Your task to perform on an android device: turn off wifi Image 0: 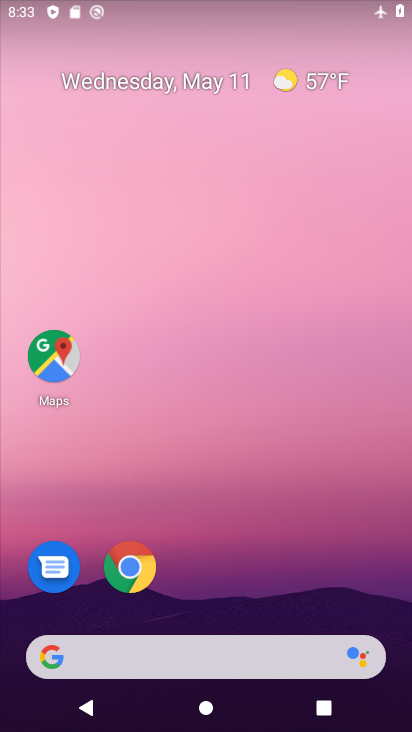
Step 0: drag from (300, 547) to (182, 22)
Your task to perform on an android device: turn off wifi Image 1: 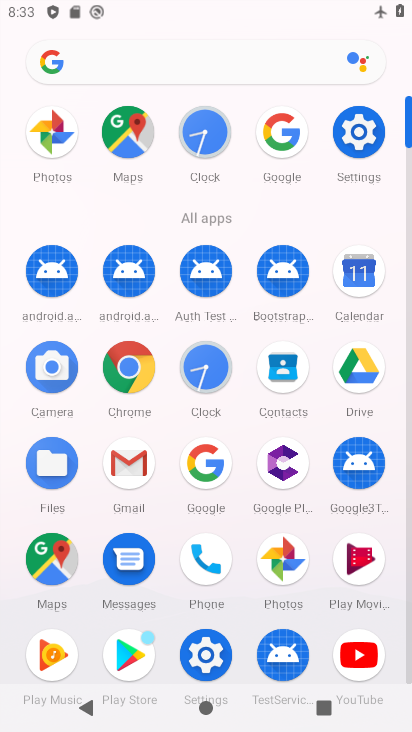
Step 1: click (362, 139)
Your task to perform on an android device: turn off wifi Image 2: 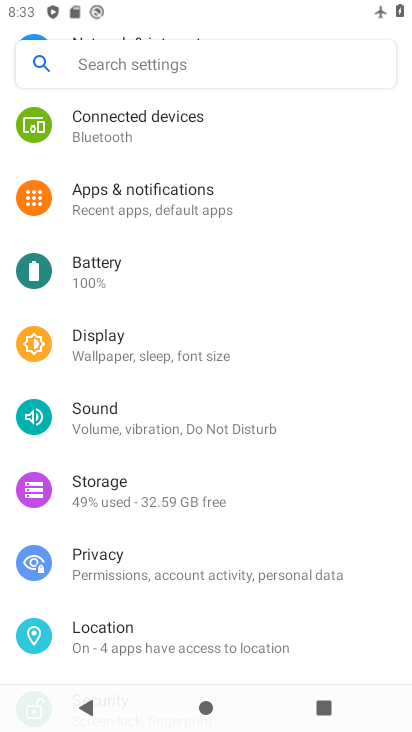
Step 2: drag from (250, 164) to (242, 589)
Your task to perform on an android device: turn off wifi Image 3: 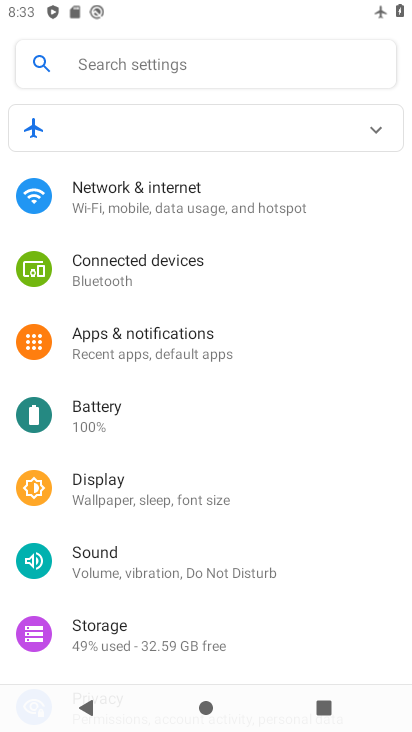
Step 3: click (158, 214)
Your task to perform on an android device: turn off wifi Image 4: 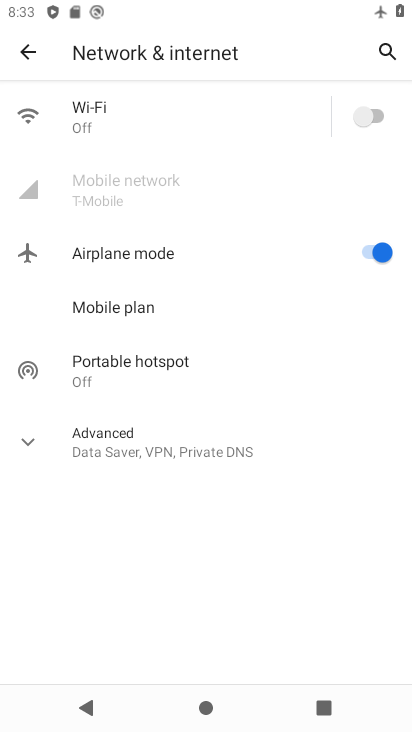
Step 4: task complete